Your task to perform on an android device: turn off notifications settings in the gmail app Image 0: 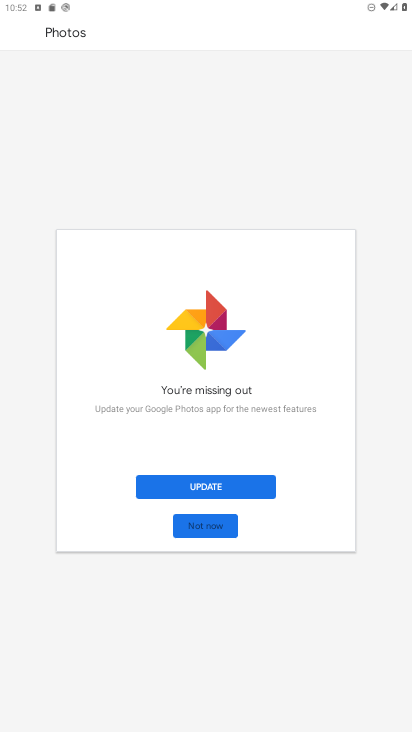
Step 0: press home button
Your task to perform on an android device: turn off notifications settings in the gmail app Image 1: 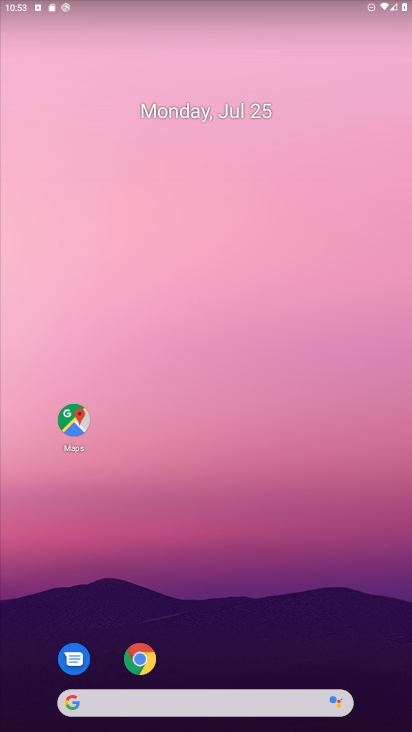
Step 1: drag from (244, 635) to (255, 175)
Your task to perform on an android device: turn off notifications settings in the gmail app Image 2: 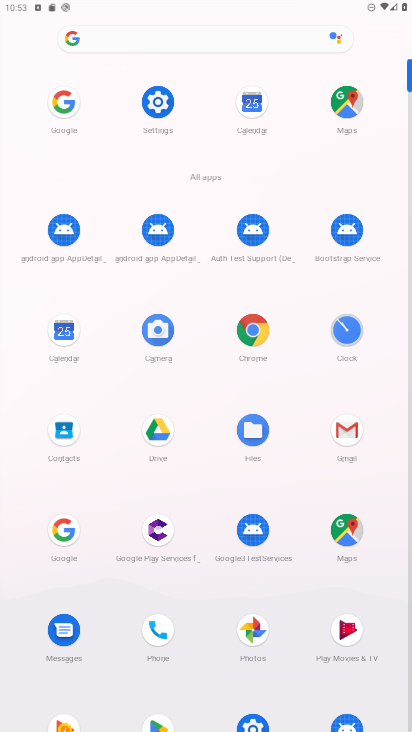
Step 2: click (337, 433)
Your task to perform on an android device: turn off notifications settings in the gmail app Image 3: 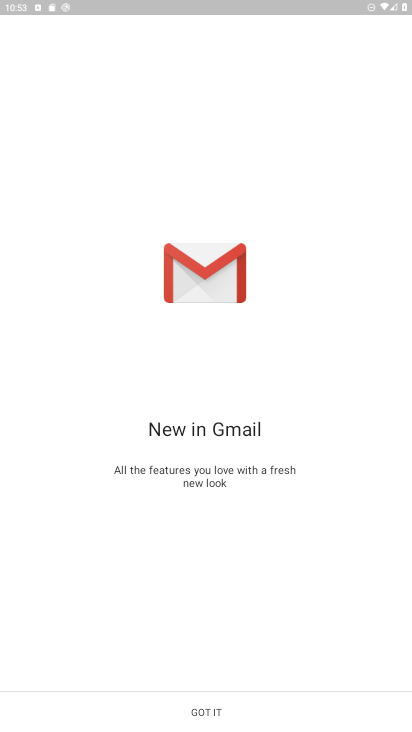
Step 3: click (241, 708)
Your task to perform on an android device: turn off notifications settings in the gmail app Image 4: 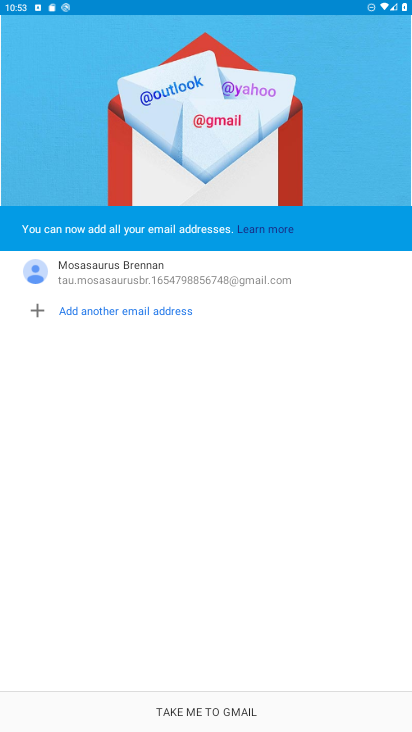
Step 4: click (224, 716)
Your task to perform on an android device: turn off notifications settings in the gmail app Image 5: 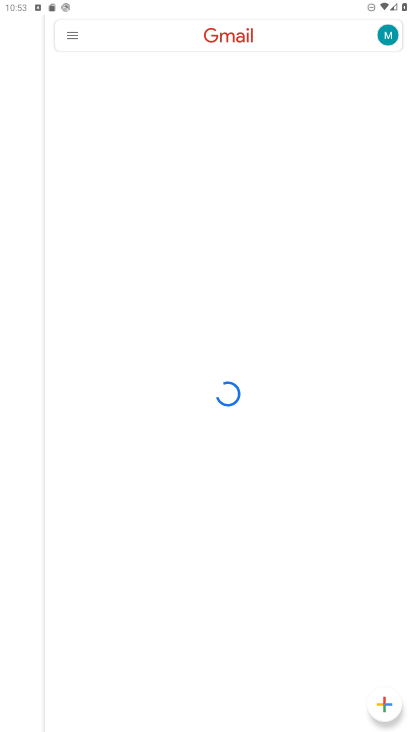
Step 5: click (35, 35)
Your task to perform on an android device: turn off notifications settings in the gmail app Image 6: 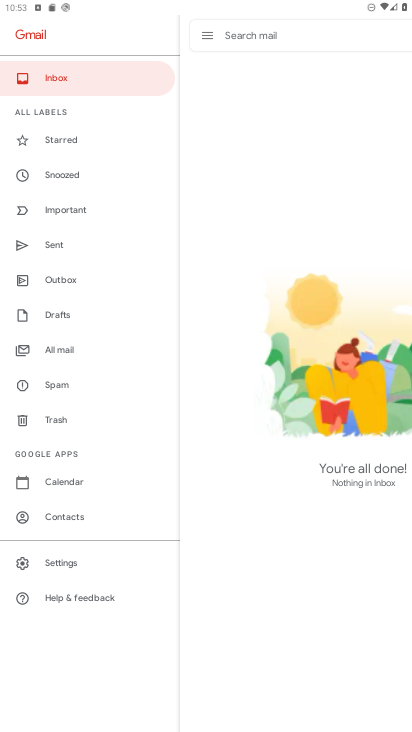
Step 6: click (71, 570)
Your task to perform on an android device: turn off notifications settings in the gmail app Image 7: 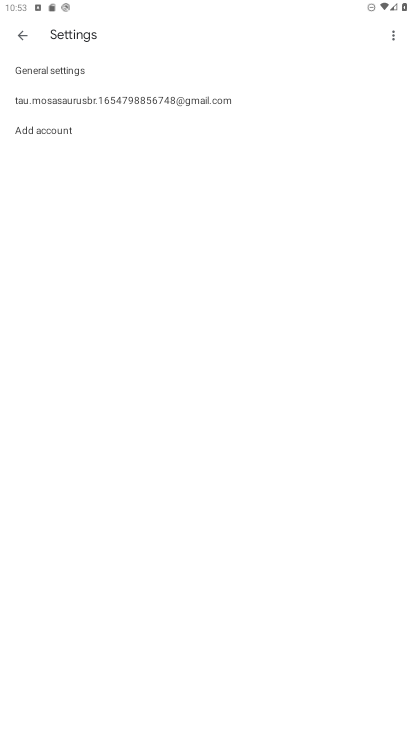
Step 7: click (42, 111)
Your task to perform on an android device: turn off notifications settings in the gmail app Image 8: 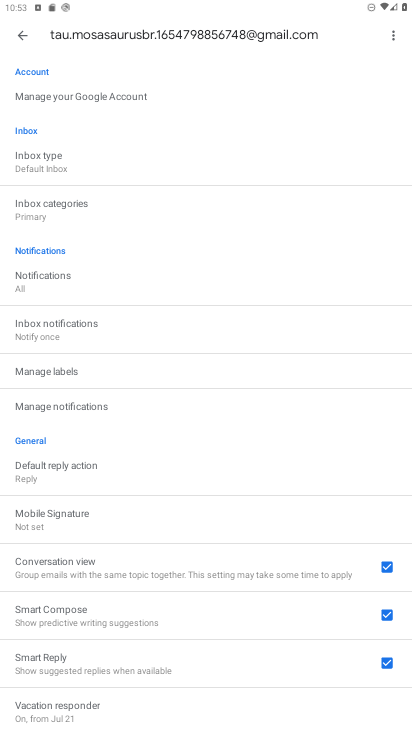
Step 8: click (107, 399)
Your task to perform on an android device: turn off notifications settings in the gmail app Image 9: 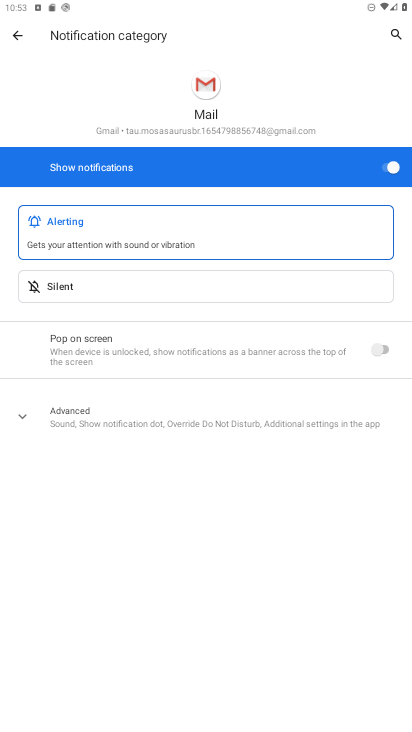
Step 9: click (382, 168)
Your task to perform on an android device: turn off notifications settings in the gmail app Image 10: 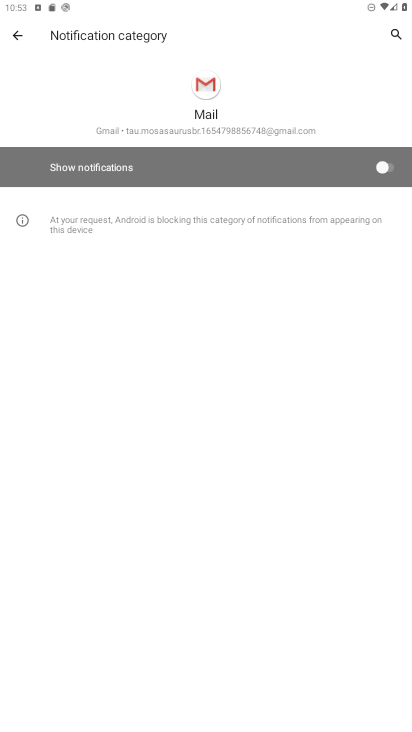
Step 10: task complete